Your task to perform on an android device: toggle show notifications on the lock screen Image 0: 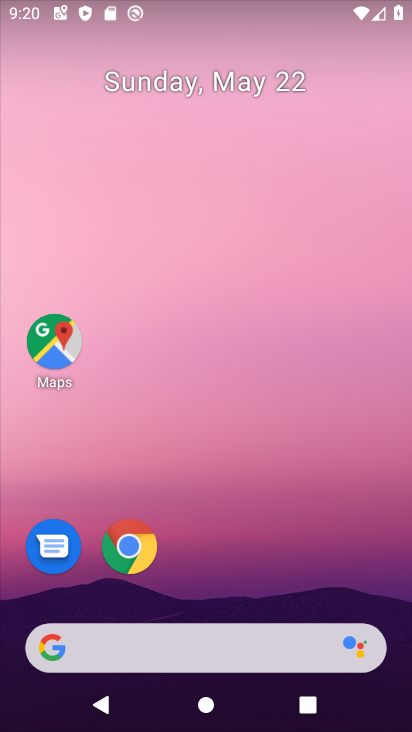
Step 0: drag from (202, 595) to (226, 88)
Your task to perform on an android device: toggle show notifications on the lock screen Image 1: 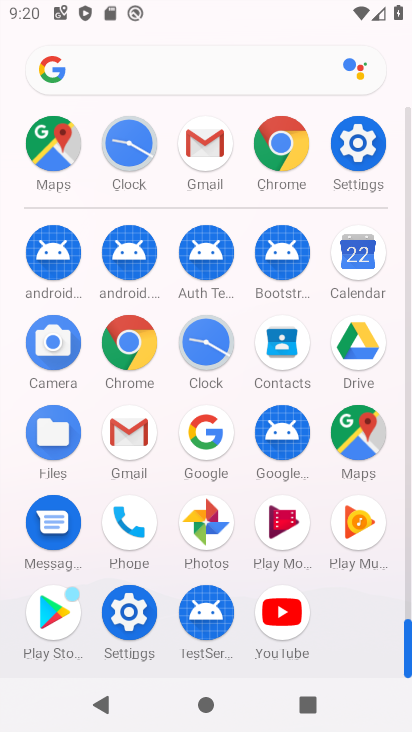
Step 1: click (129, 623)
Your task to perform on an android device: toggle show notifications on the lock screen Image 2: 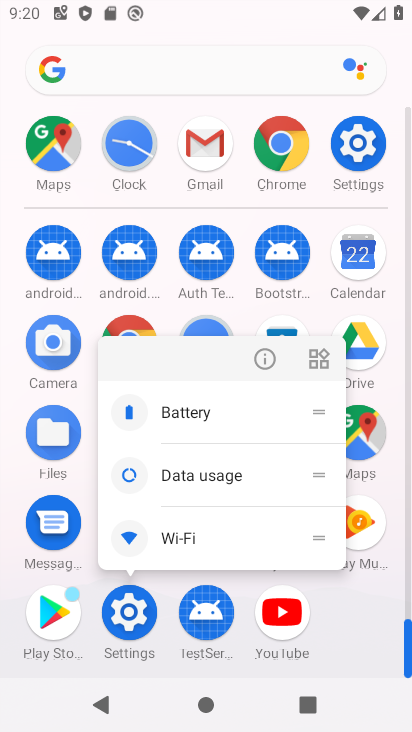
Step 2: click (271, 355)
Your task to perform on an android device: toggle show notifications on the lock screen Image 3: 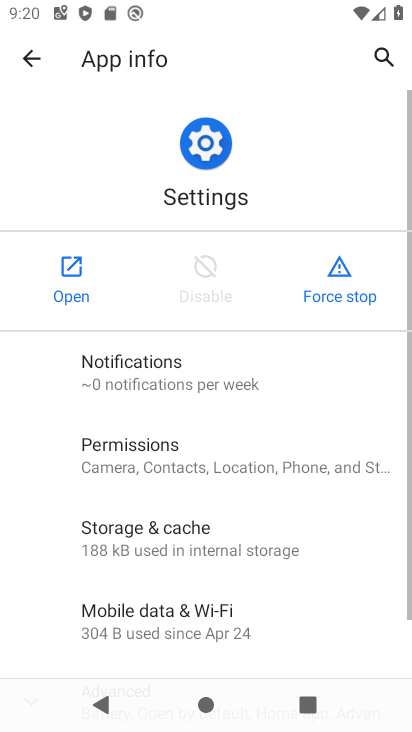
Step 3: click (69, 298)
Your task to perform on an android device: toggle show notifications on the lock screen Image 4: 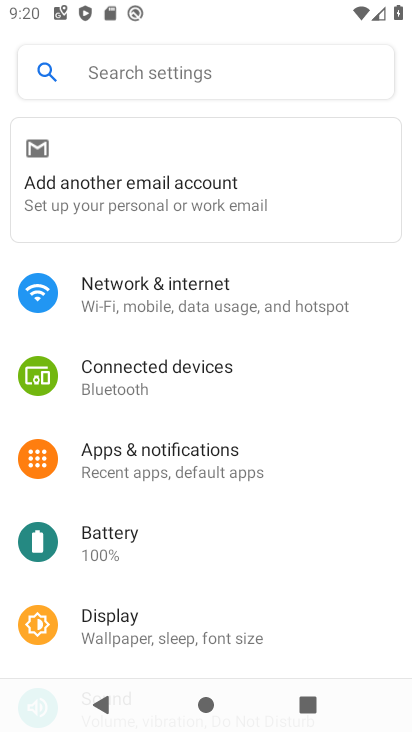
Step 4: click (141, 455)
Your task to perform on an android device: toggle show notifications on the lock screen Image 5: 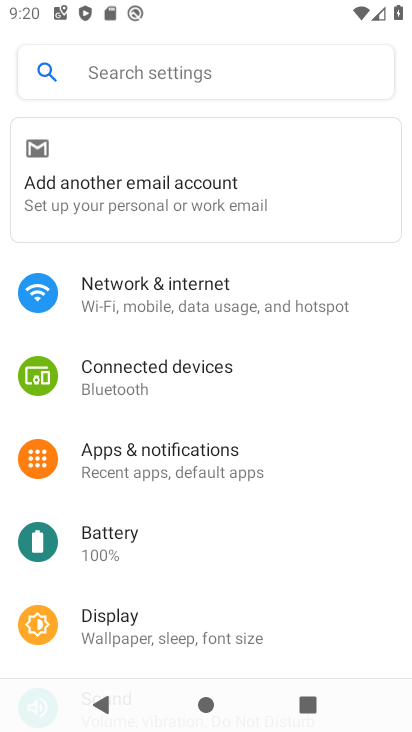
Step 5: click (141, 455)
Your task to perform on an android device: toggle show notifications on the lock screen Image 6: 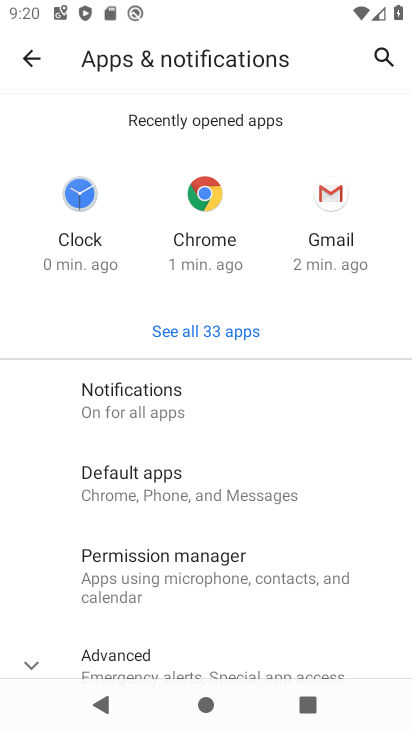
Step 6: click (208, 406)
Your task to perform on an android device: toggle show notifications on the lock screen Image 7: 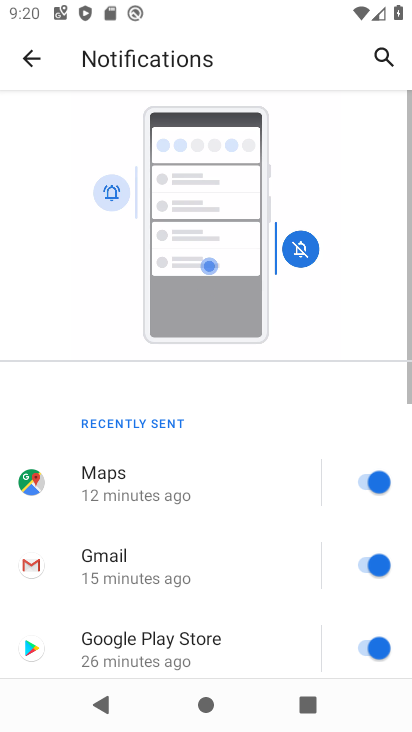
Step 7: drag from (207, 591) to (313, 2)
Your task to perform on an android device: toggle show notifications on the lock screen Image 8: 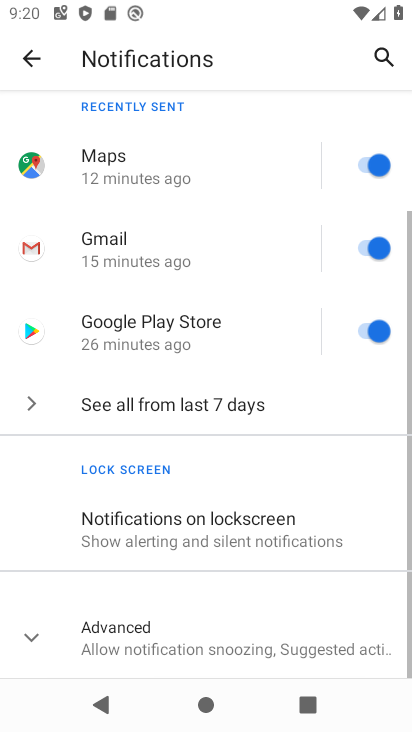
Step 8: click (209, 507)
Your task to perform on an android device: toggle show notifications on the lock screen Image 9: 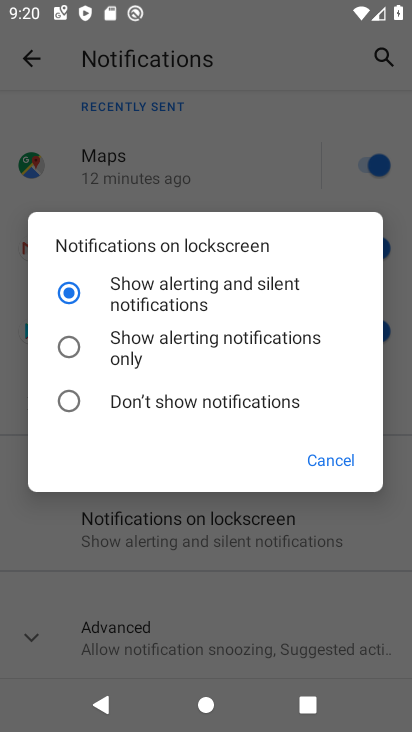
Step 9: click (97, 345)
Your task to perform on an android device: toggle show notifications on the lock screen Image 10: 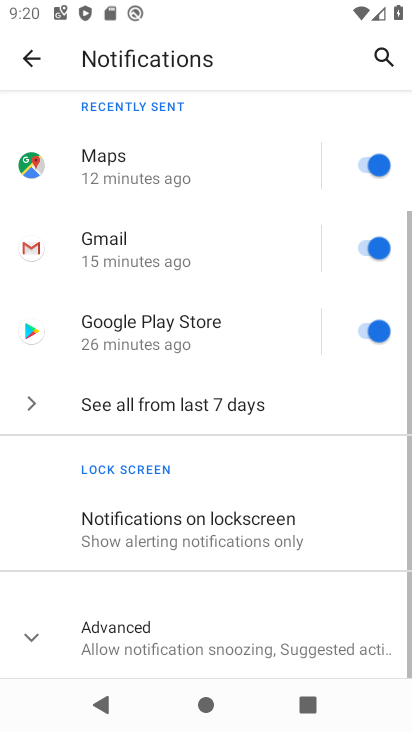
Step 10: task complete